Your task to perform on an android device: Open the web browser Image 0: 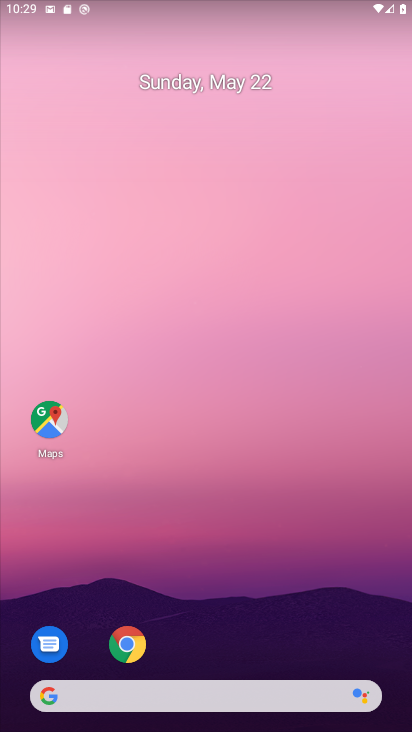
Step 0: press home button
Your task to perform on an android device: Open the web browser Image 1: 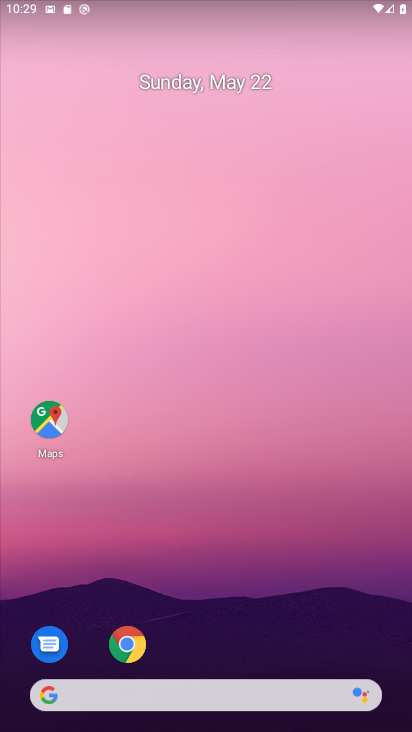
Step 1: drag from (213, 625) to (262, 86)
Your task to perform on an android device: Open the web browser Image 2: 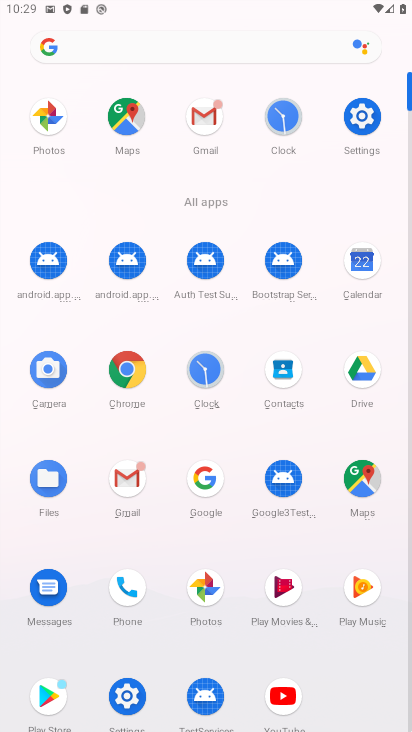
Step 2: click (124, 377)
Your task to perform on an android device: Open the web browser Image 3: 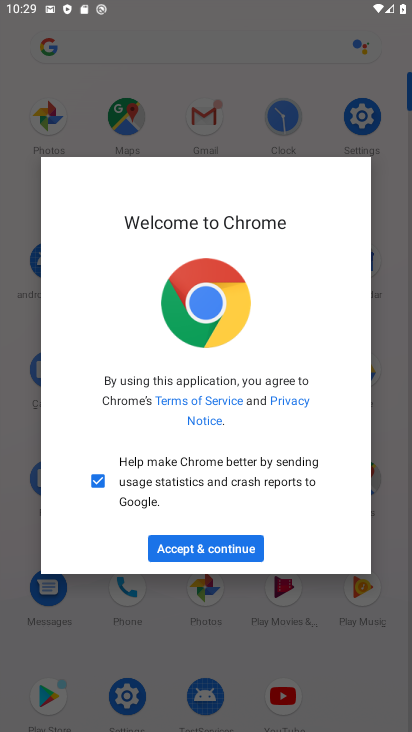
Step 3: click (212, 541)
Your task to perform on an android device: Open the web browser Image 4: 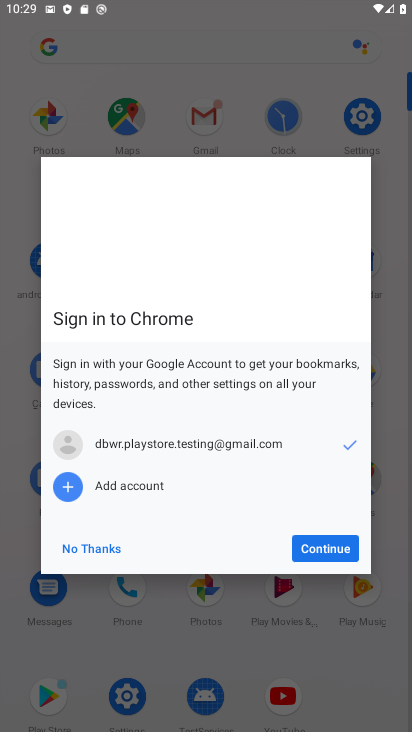
Step 4: click (309, 540)
Your task to perform on an android device: Open the web browser Image 5: 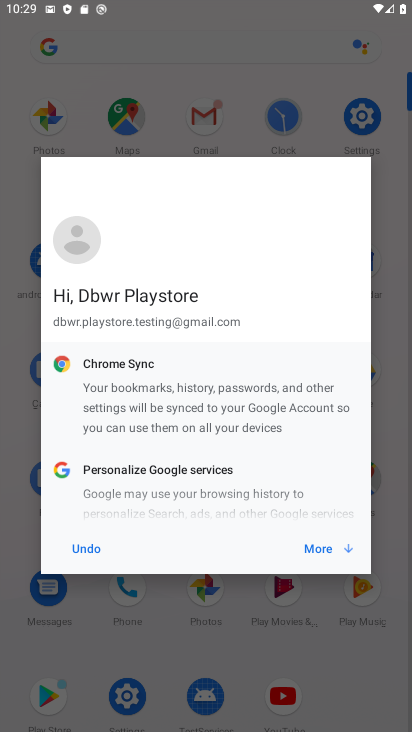
Step 5: click (324, 544)
Your task to perform on an android device: Open the web browser Image 6: 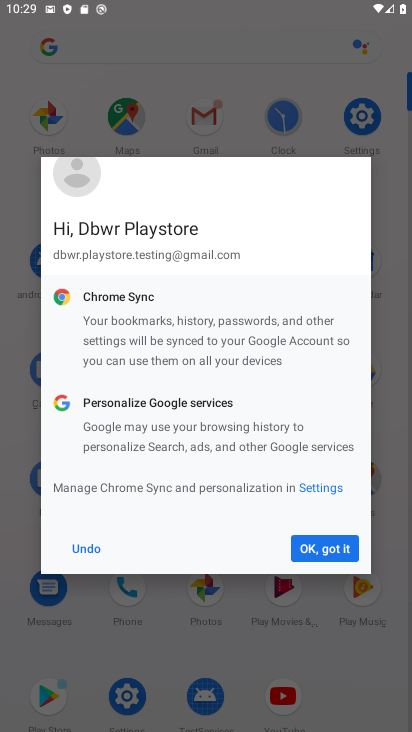
Step 6: click (324, 544)
Your task to perform on an android device: Open the web browser Image 7: 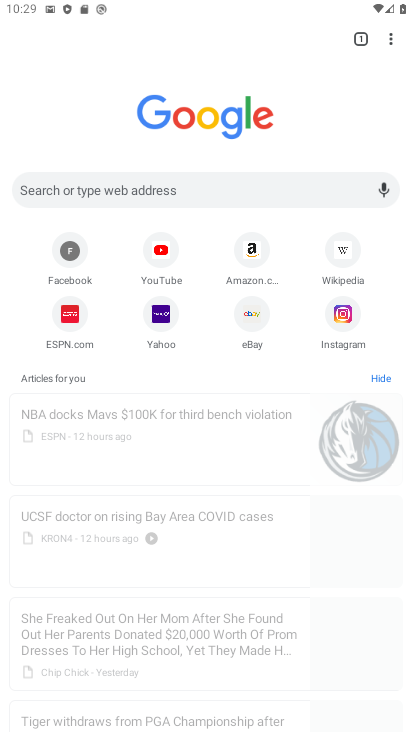
Step 7: task complete